Your task to perform on an android device: toggle notification dots Image 0: 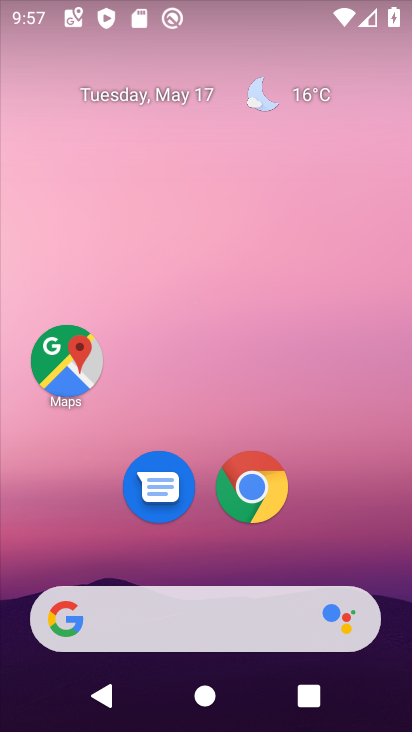
Step 0: drag from (231, 555) to (222, 40)
Your task to perform on an android device: toggle notification dots Image 1: 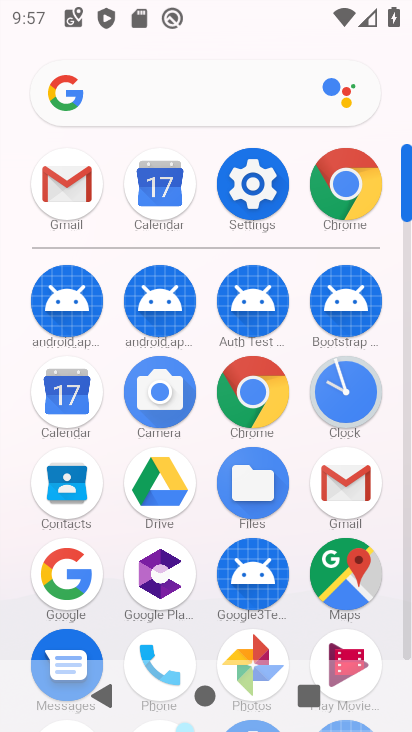
Step 1: click (255, 178)
Your task to perform on an android device: toggle notification dots Image 2: 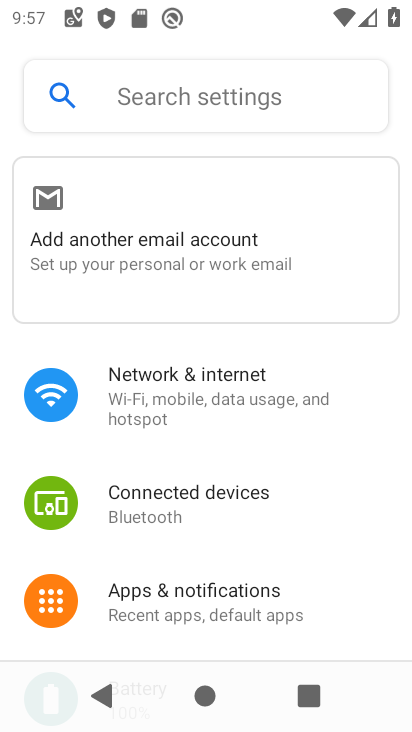
Step 2: click (219, 593)
Your task to perform on an android device: toggle notification dots Image 3: 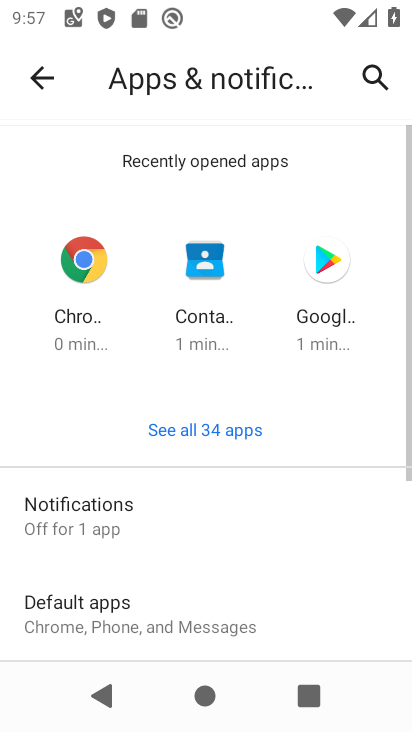
Step 3: drag from (130, 553) to (125, 384)
Your task to perform on an android device: toggle notification dots Image 4: 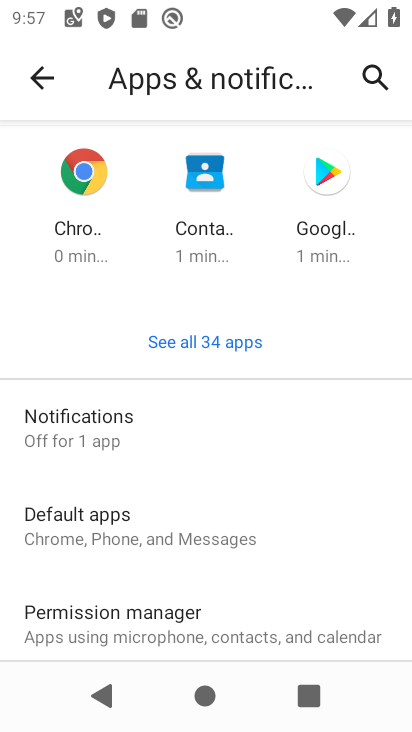
Step 4: click (86, 418)
Your task to perform on an android device: toggle notification dots Image 5: 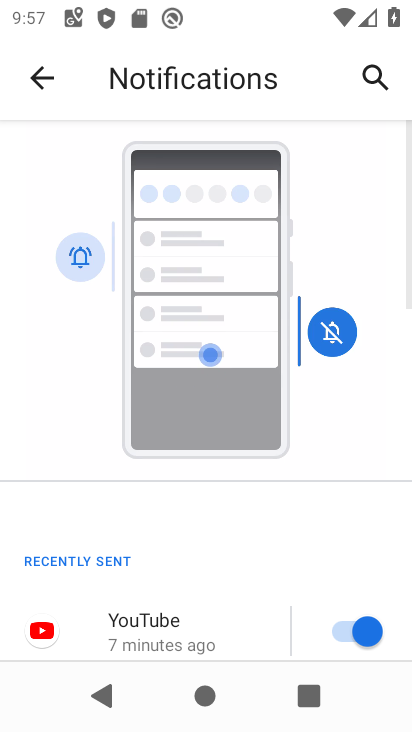
Step 5: drag from (203, 585) to (228, 230)
Your task to perform on an android device: toggle notification dots Image 6: 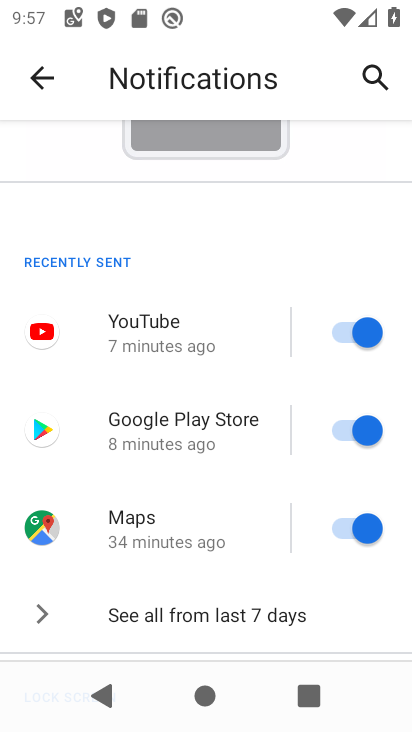
Step 6: drag from (207, 620) to (220, 222)
Your task to perform on an android device: toggle notification dots Image 7: 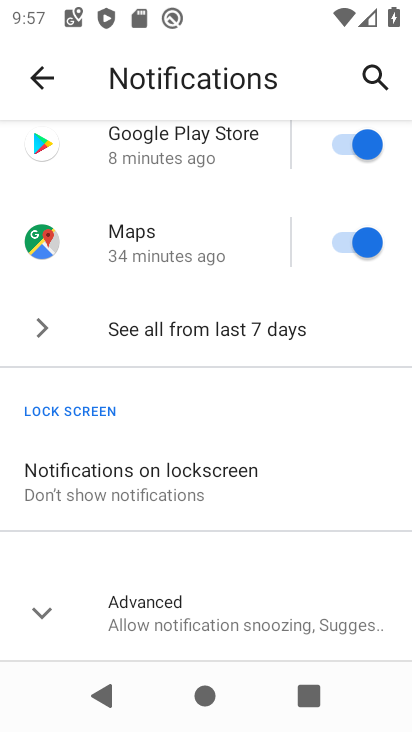
Step 7: click (160, 589)
Your task to perform on an android device: toggle notification dots Image 8: 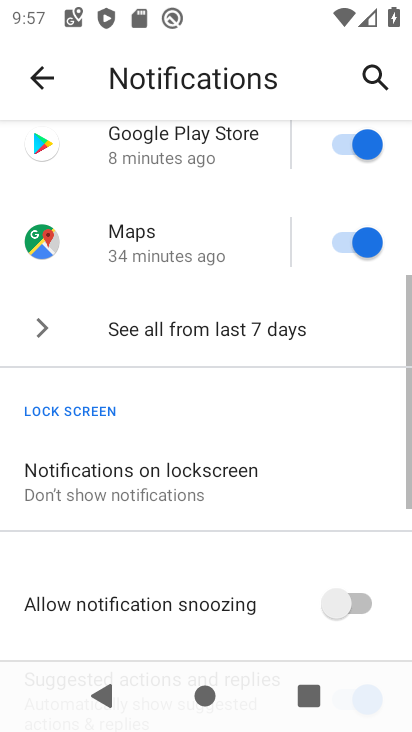
Step 8: drag from (233, 584) to (277, 194)
Your task to perform on an android device: toggle notification dots Image 9: 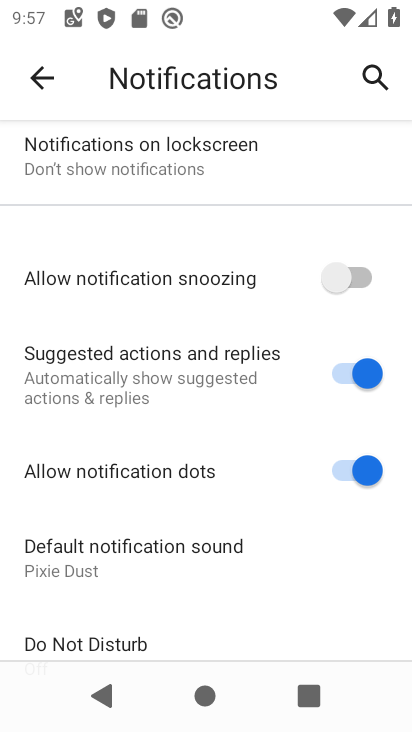
Step 9: click (344, 480)
Your task to perform on an android device: toggle notification dots Image 10: 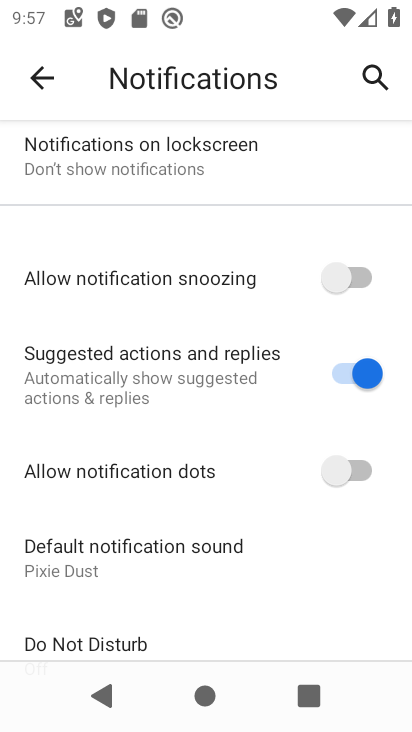
Step 10: task complete